Your task to perform on an android device: Show me productivity apps on the Play Store Image 0: 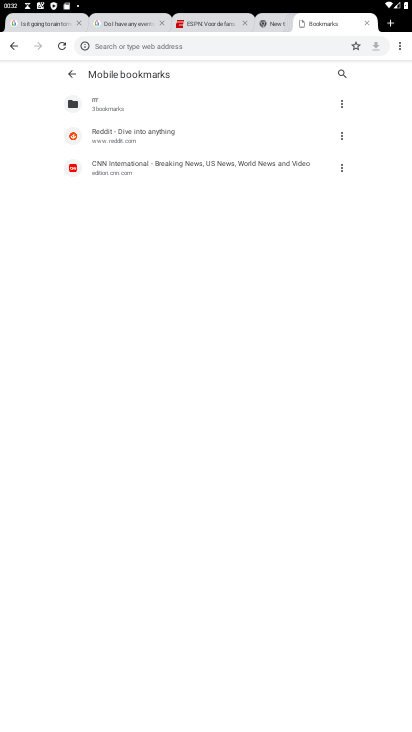
Step 0: press home button
Your task to perform on an android device: Show me productivity apps on the Play Store Image 1: 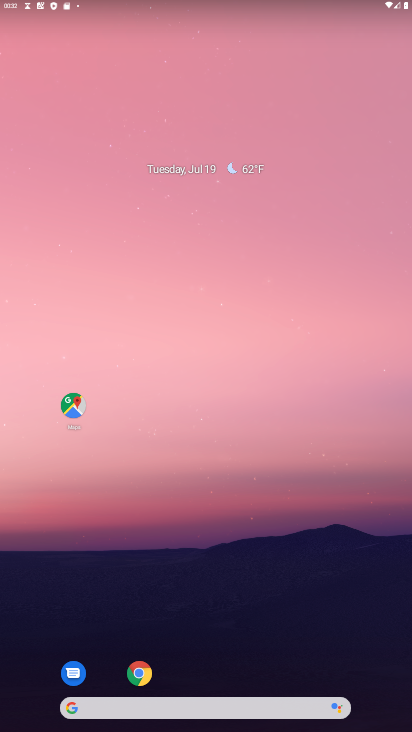
Step 1: drag from (237, 654) to (239, 127)
Your task to perform on an android device: Show me productivity apps on the Play Store Image 2: 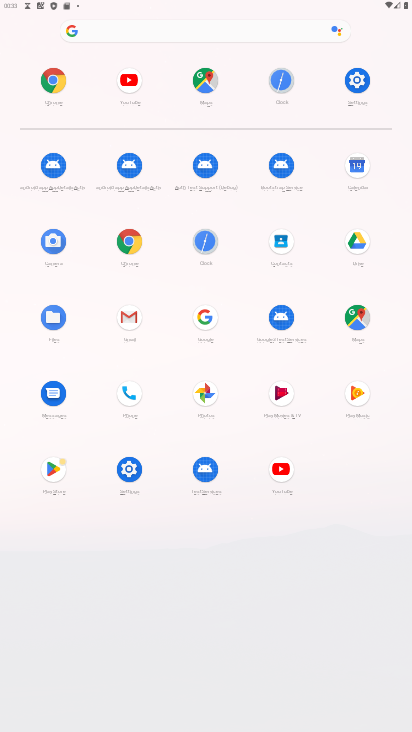
Step 2: click (50, 469)
Your task to perform on an android device: Show me productivity apps on the Play Store Image 3: 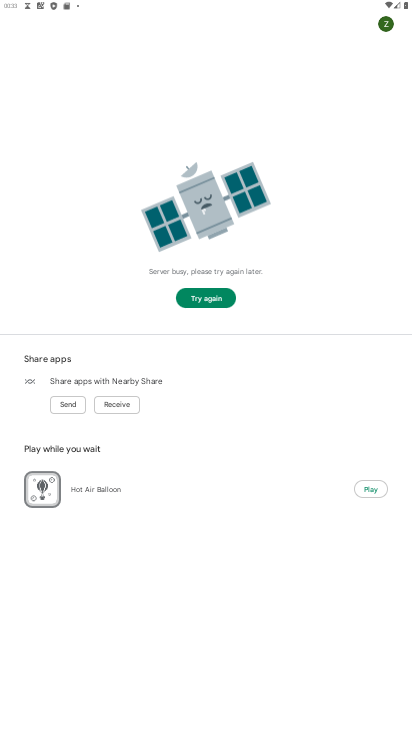
Step 3: task complete